Your task to perform on an android device: Open calendar and show me the first week of next month Image 0: 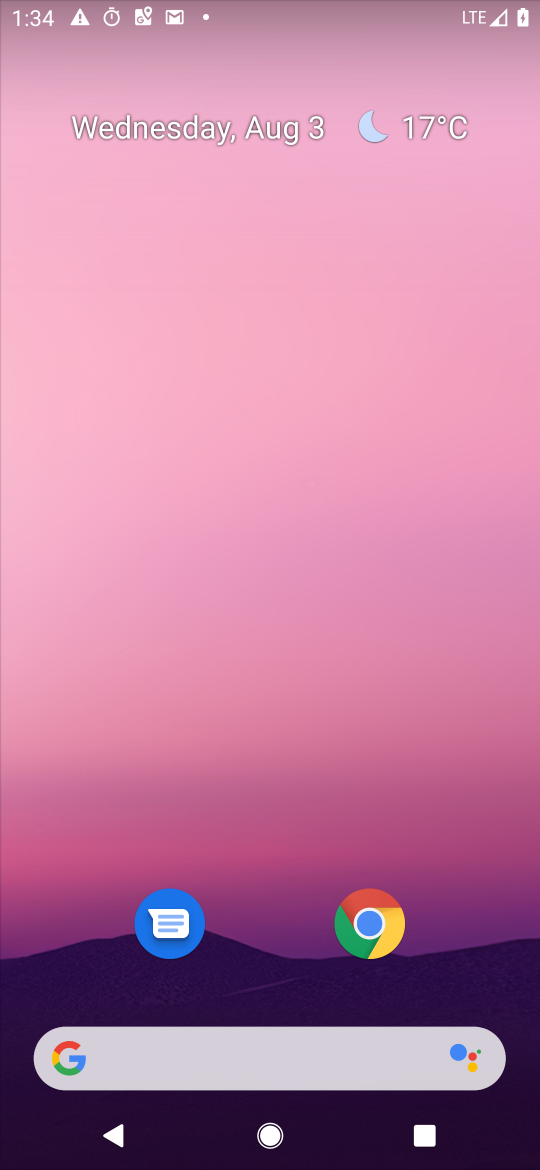
Step 0: drag from (258, 940) to (283, 201)
Your task to perform on an android device: Open calendar and show me the first week of next month Image 1: 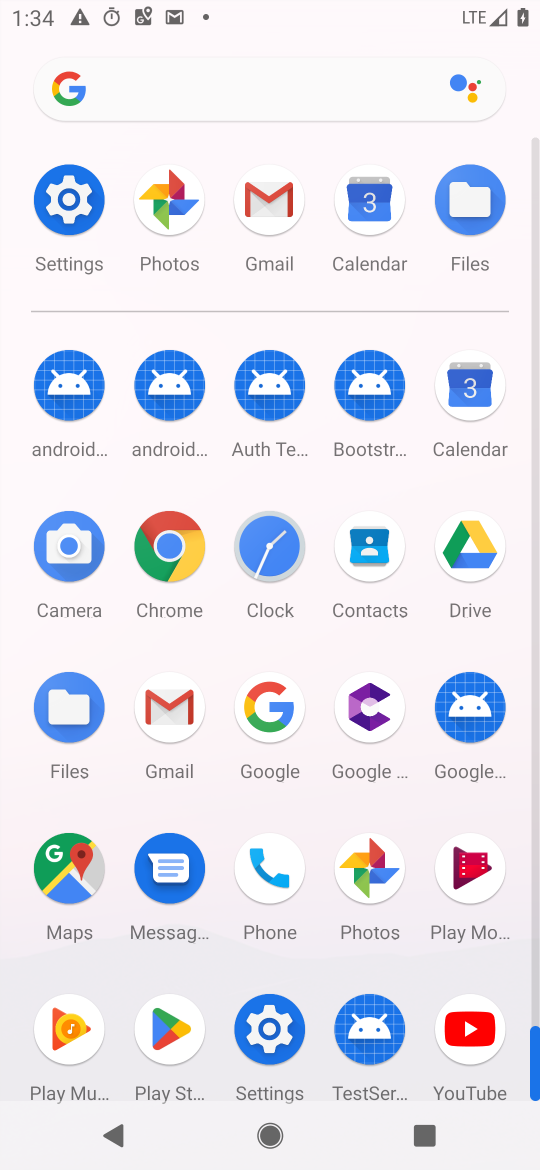
Step 1: drag from (209, 951) to (217, 366)
Your task to perform on an android device: Open calendar and show me the first week of next month Image 2: 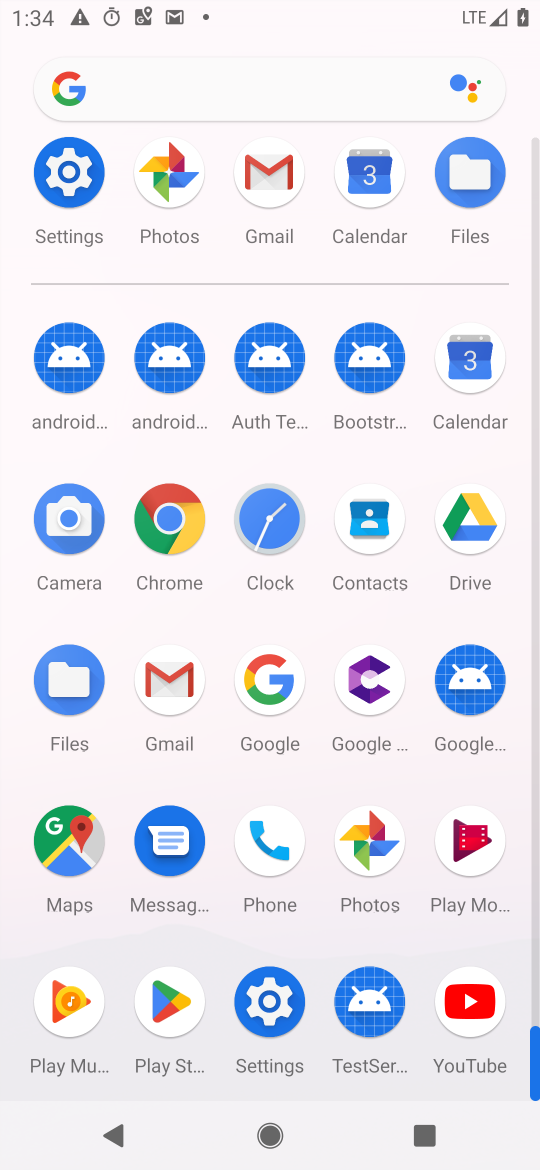
Step 2: click (465, 340)
Your task to perform on an android device: Open calendar and show me the first week of next month Image 3: 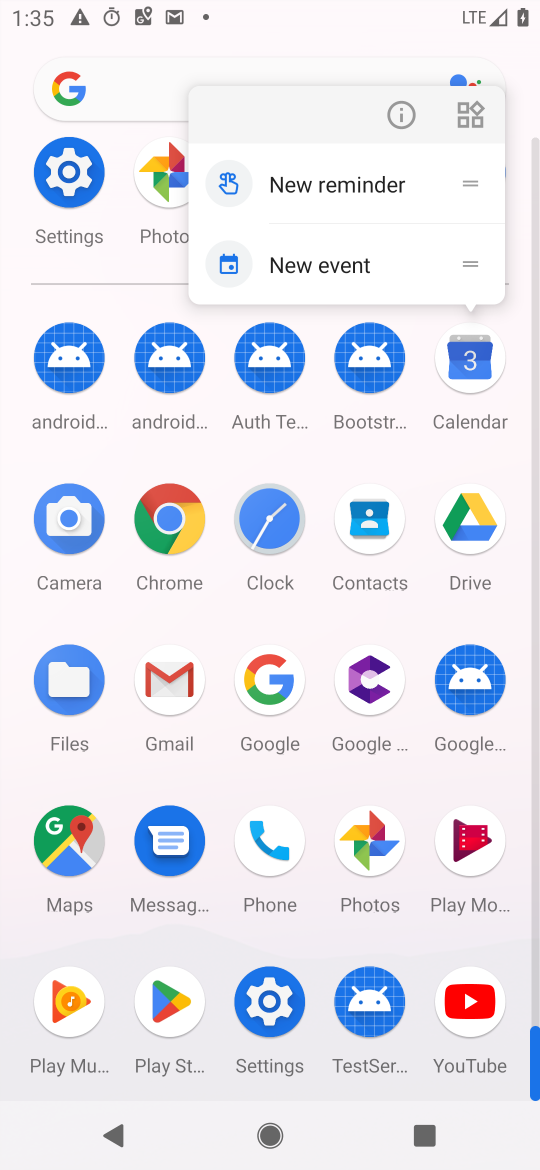
Step 3: click (407, 108)
Your task to perform on an android device: Open calendar and show me the first week of next month Image 4: 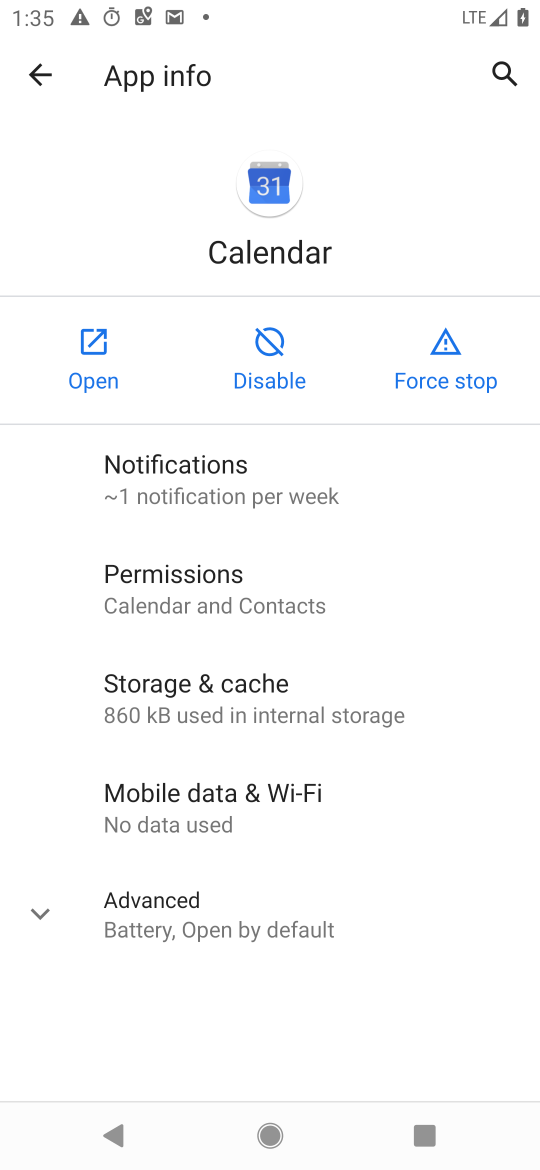
Step 4: click (98, 350)
Your task to perform on an android device: Open calendar and show me the first week of next month Image 5: 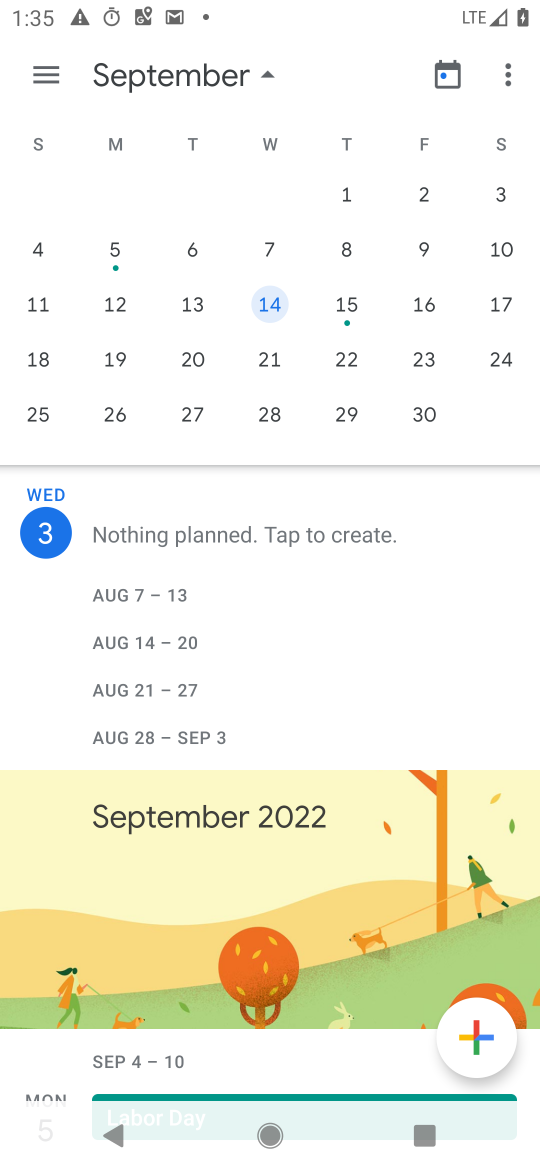
Step 5: drag from (426, 259) to (0, 254)
Your task to perform on an android device: Open calendar and show me the first week of next month Image 6: 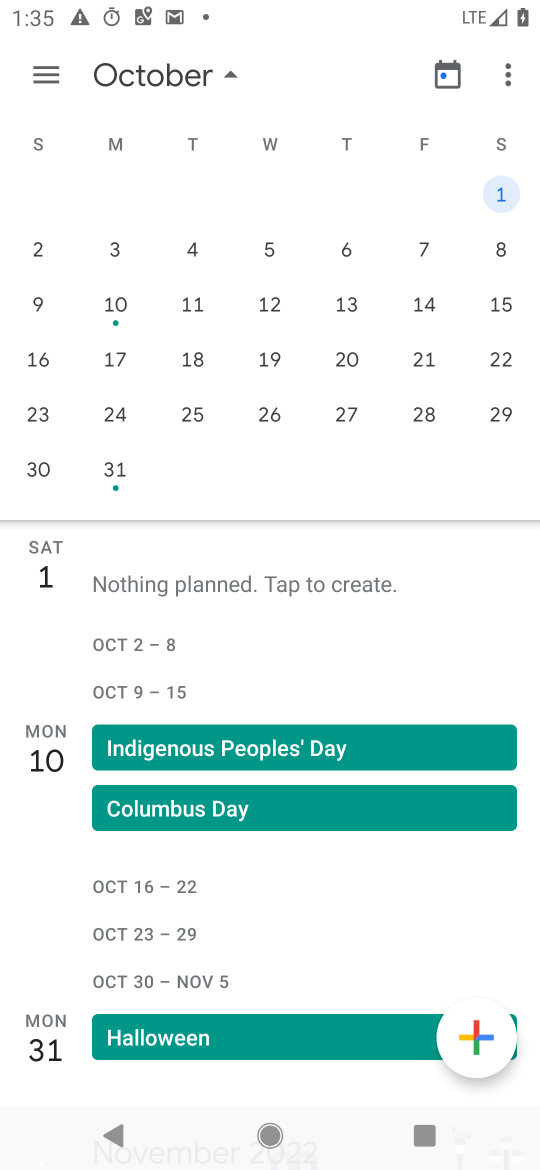
Step 6: drag from (272, 311) to (536, 263)
Your task to perform on an android device: Open calendar and show me the first week of next month Image 7: 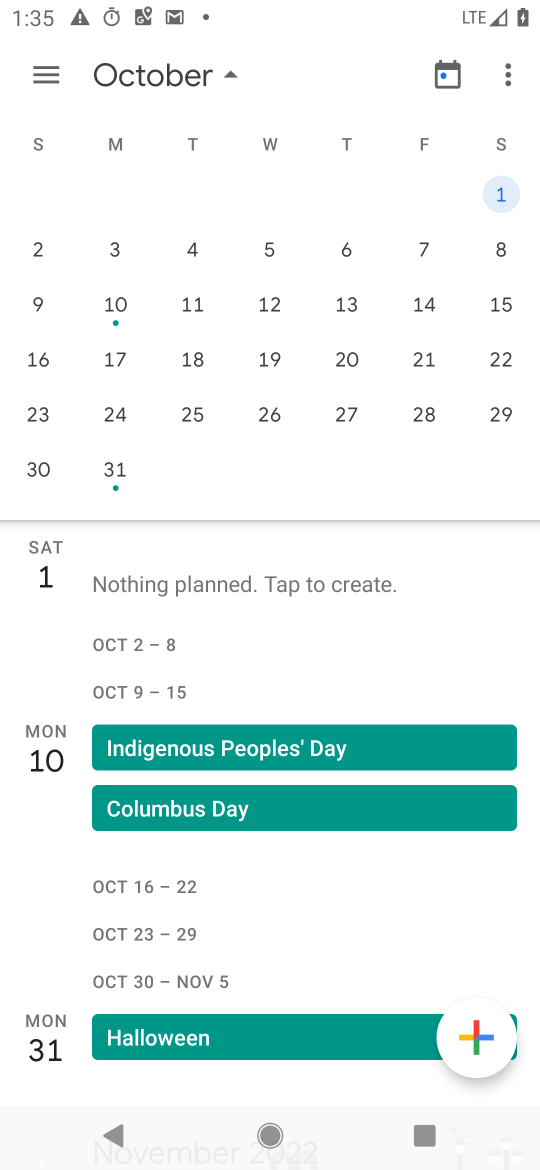
Step 7: click (502, 194)
Your task to perform on an android device: Open calendar and show me the first week of next month Image 8: 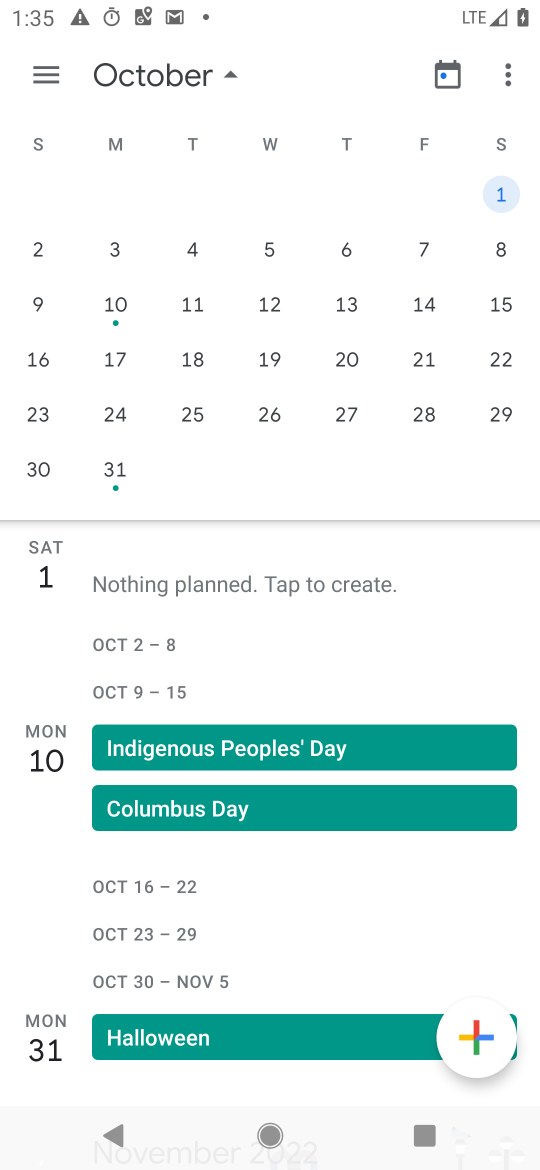
Step 8: task complete